Your task to perform on an android device: toggle sleep mode Image 0: 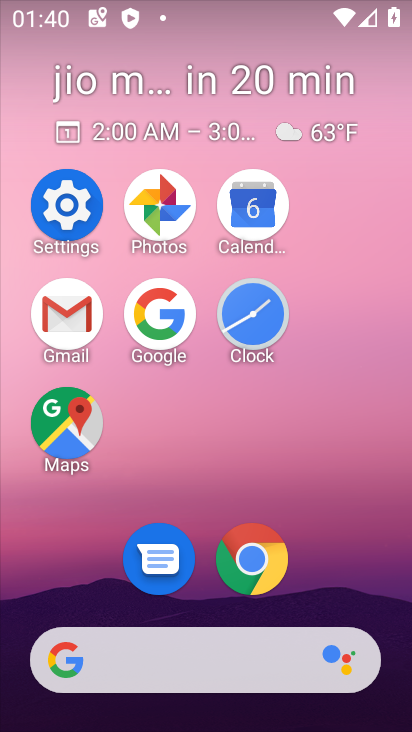
Step 0: click (67, 211)
Your task to perform on an android device: toggle sleep mode Image 1: 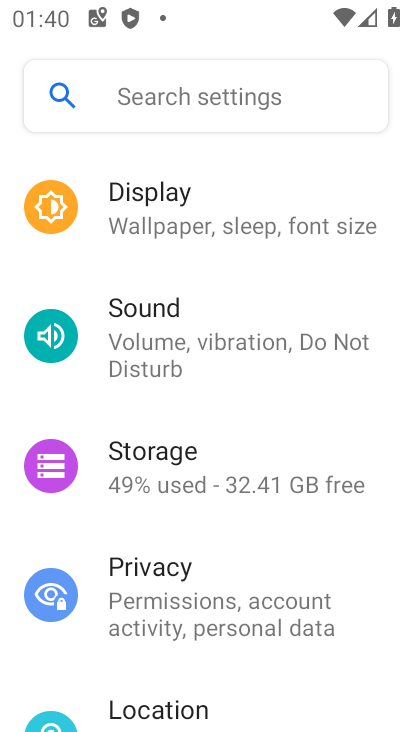
Step 1: drag from (220, 625) to (209, 287)
Your task to perform on an android device: toggle sleep mode Image 2: 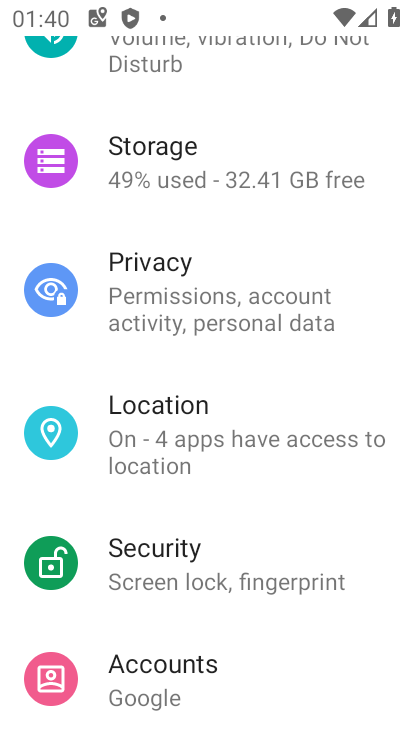
Step 2: drag from (243, 299) to (223, 641)
Your task to perform on an android device: toggle sleep mode Image 3: 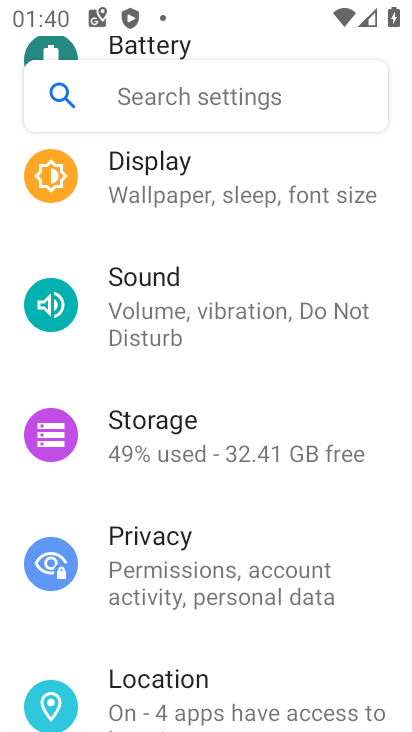
Step 3: click (234, 186)
Your task to perform on an android device: toggle sleep mode Image 4: 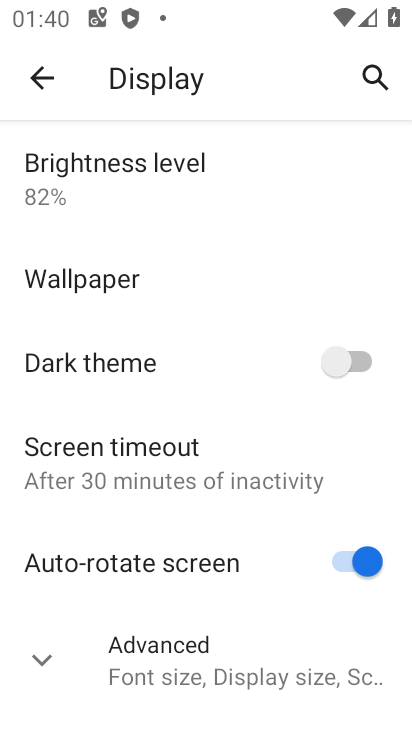
Step 4: click (234, 512)
Your task to perform on an android device: toggle sleep mode Image 5: 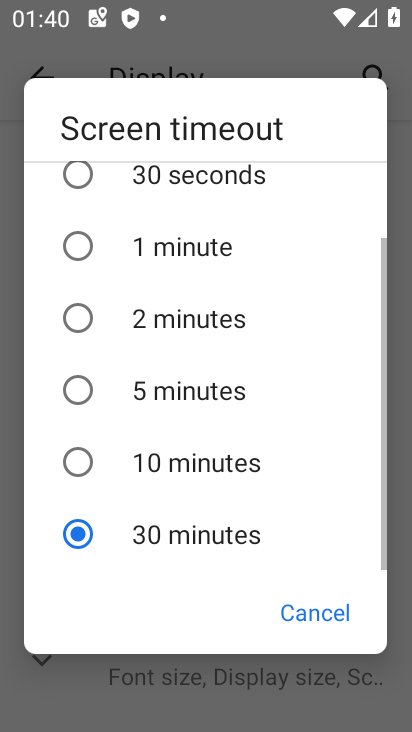
Step 5: click (174, 317)
Your task to perform on an android device: toggle sleep mode Image 6: 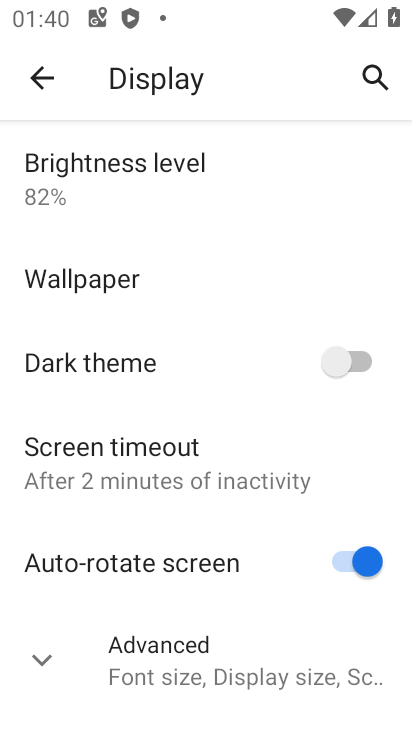
Step 6: task complete